Your task to perform on an android device: View the shopping cart on bestbuy.com. Add usb-c to usb-b to the cart on bestbuy.com, then select checkout. Image 0: 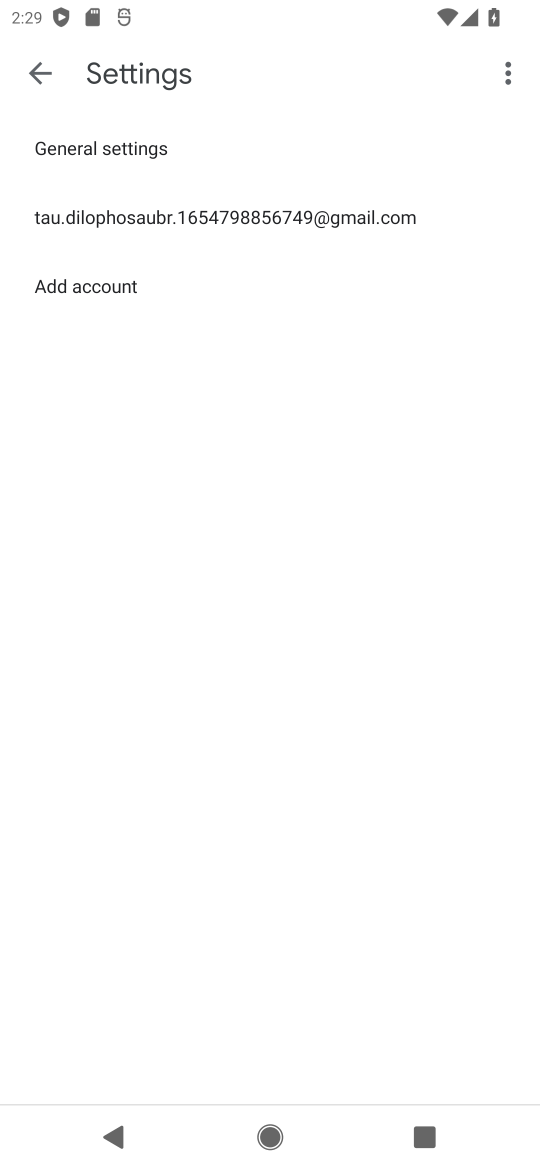
Step 0: press home button
Your task to perform on an android device: View the shopping cart on bestbuy.com. Add usb-c to usb-b to the cart on bestbuy.com, then select checkout. Image 1: 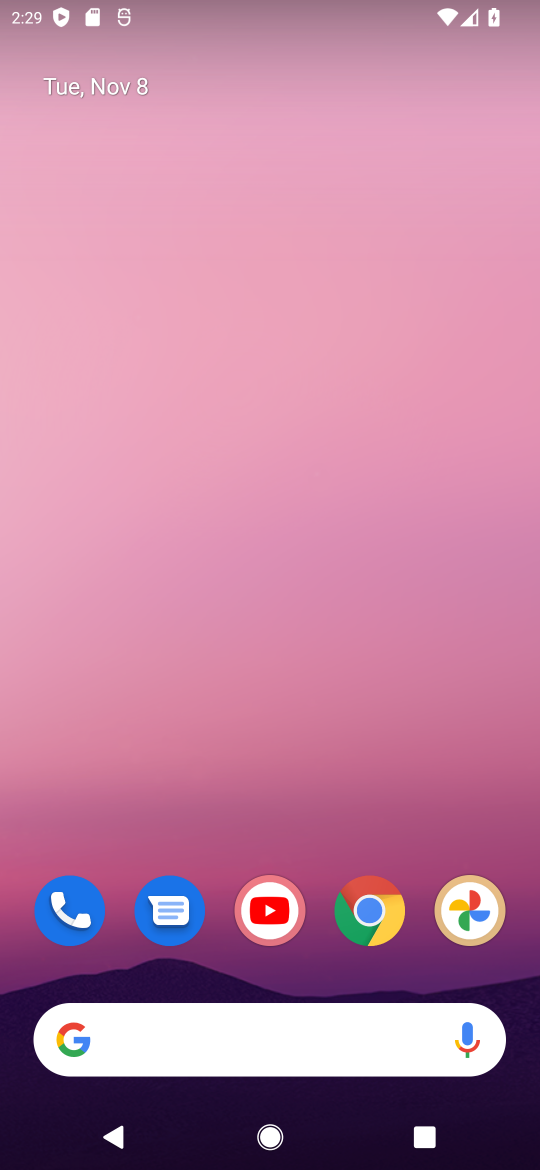
Step 1: drag from (318, 940) to (363, 87)
Your task to perform on an android device: View the shopping cart on bestbuy.com. Add usb-c to usb-b to the cart on bestbuy.com, then select checkout. Image 2: 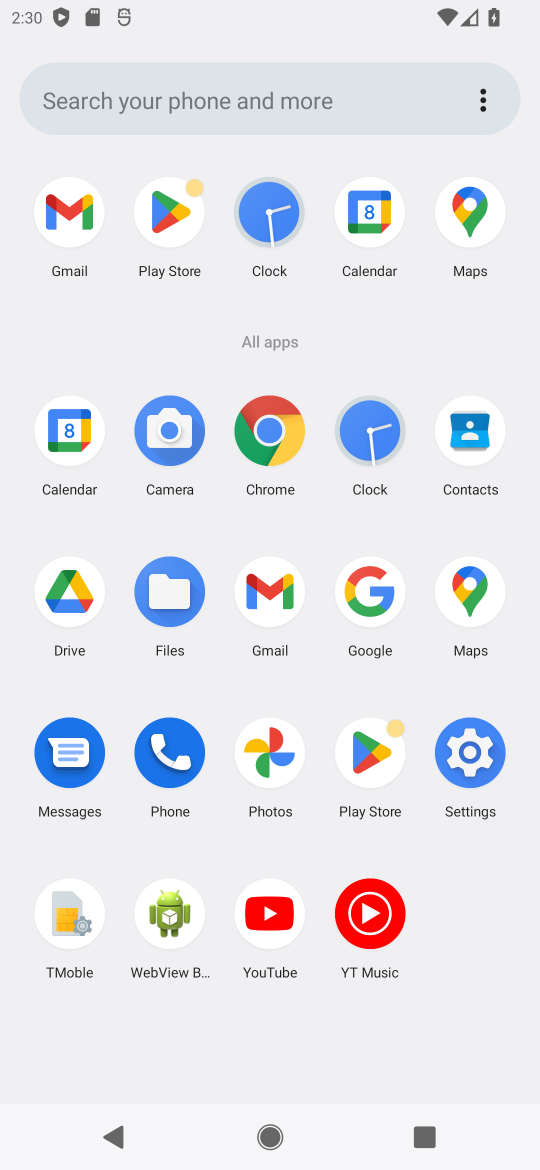
Step 2: click (273, 434)
Your task to perform on an android device: View the shopping cart on bestbuy.com. Add usb-c to usb-b to the cart on bestbuy.com, then select checkout. Image 3: 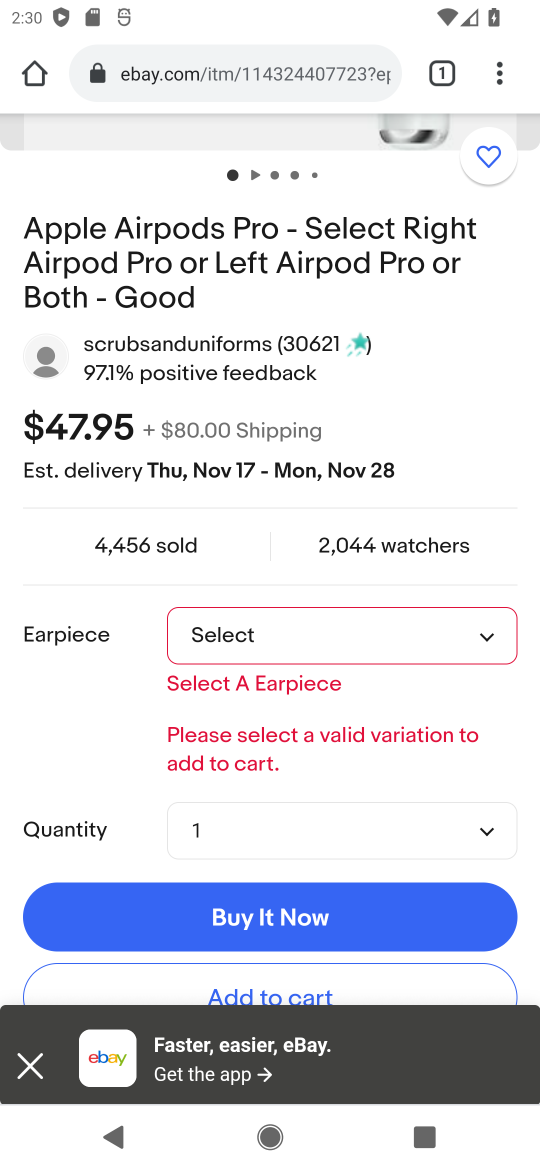
Step 3: click (322, 632)
Your task to perform on an android device: View the shopping cart on bestbuy.com. Add usb-c to usb-b to the cart on bestbuy.com, then select checkout. Image 4: 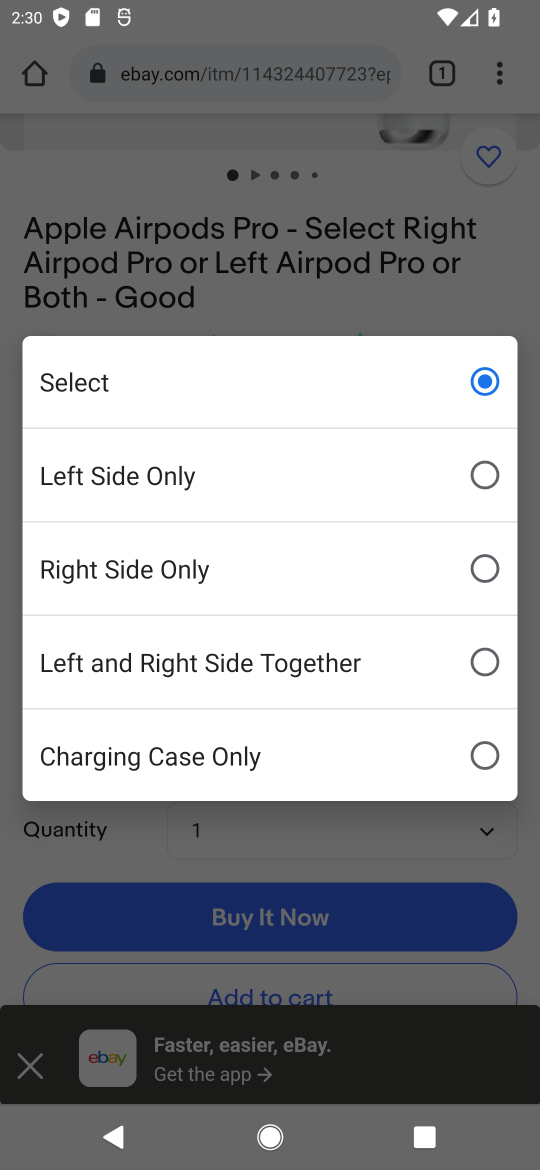
Step 4: click (299, 489)
Your task to perform on an android device: View the shopping cart on bestbuy.com. Add usb-c to usb-b to the cart on bestbuy.com, then select checkout. Image 5: 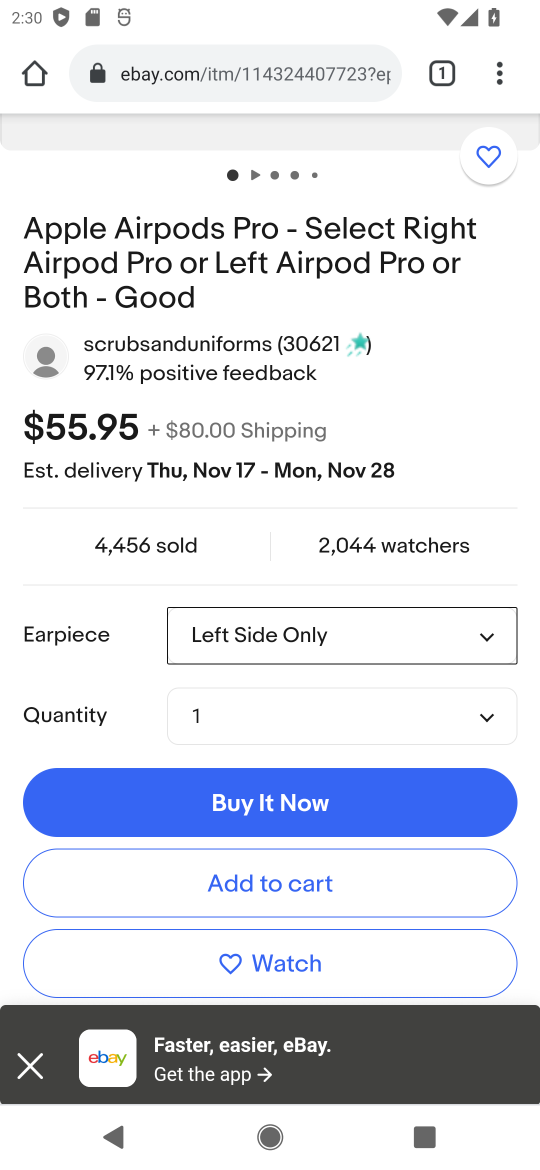
Step 5: drag from (396, 340) to (350, 731)
Your task to perform on an android device: View the shopping cart on bestbuy.com. Add usb-c to usb-b to the cart on bestbuy.com, then select checkout. Image 6: 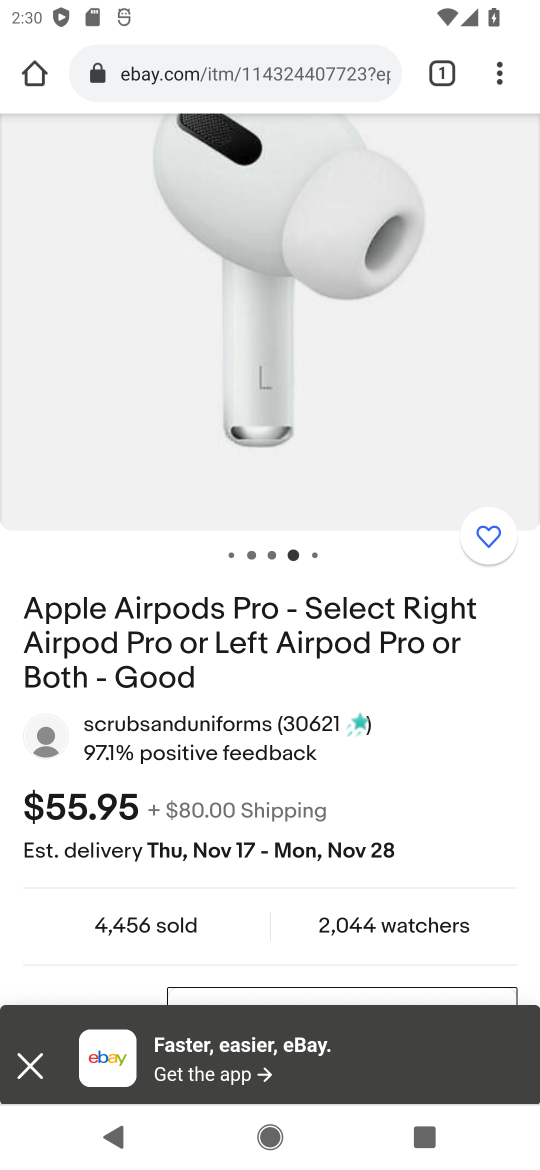
Step 6: drag from (18, 247) to (186, 822)
Your task to perform on an android device: View the shopping cart on bestbuy.com. Add usb-c to usb-b to the cart on bestbuy.com, then select checkout. Image 7: 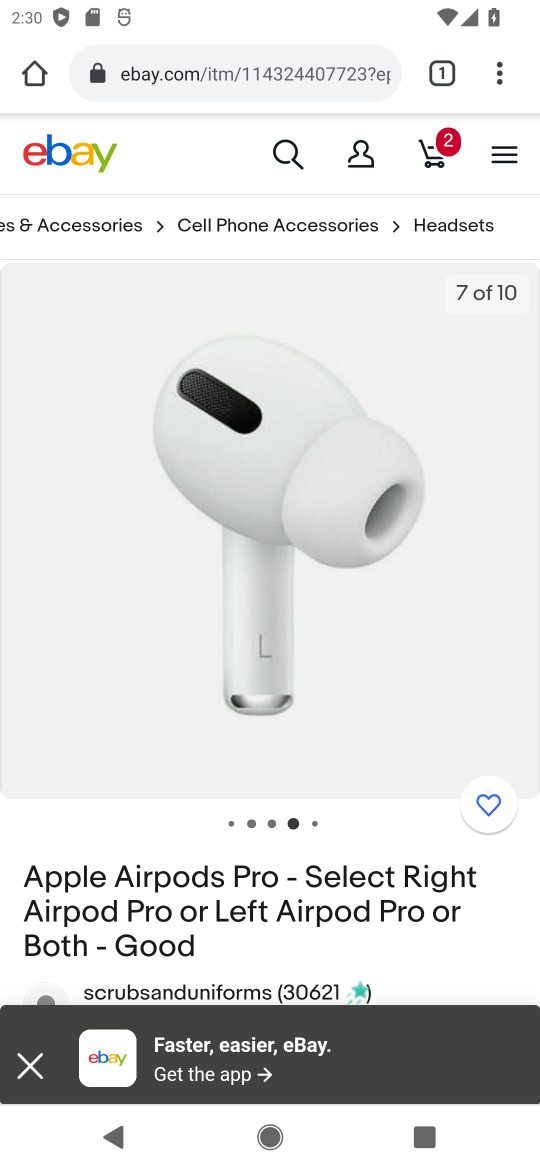
Step 7: click (160, 81)
Your task to perform on an android device: View the shopping cart on bestbuy.com. Add usb-c to usb-b to the cart on bestbuy.com, then select checkout. Image 8: 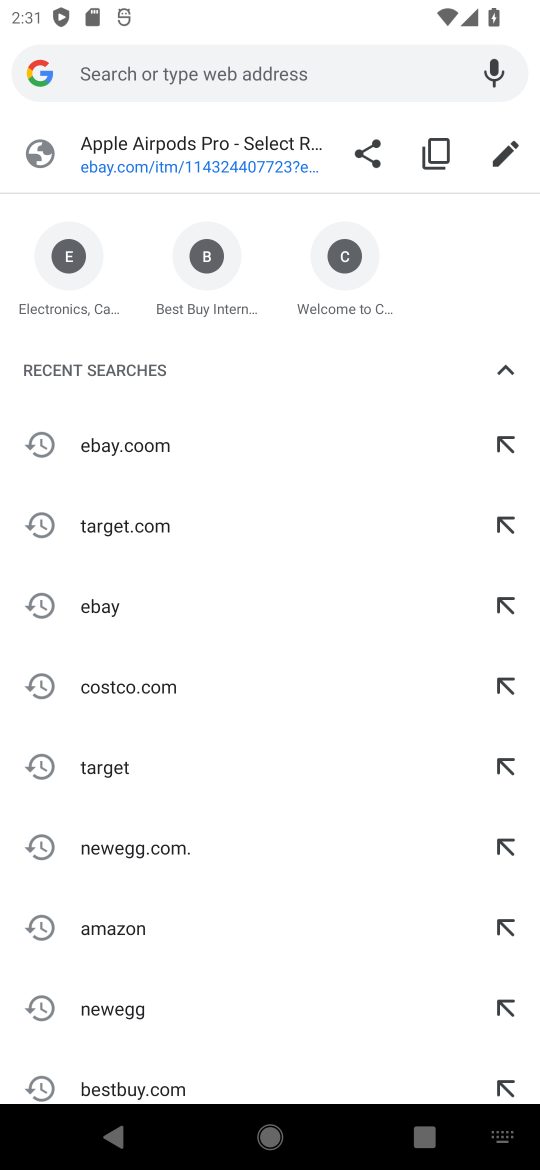
Step 8: type "bestbuy.com"
Your task to perform on an android device: View the shopping cart on bestbuy.com. Add usb-c to usb-b to the cart on bestbuy.com, then select checkout. Image 9: 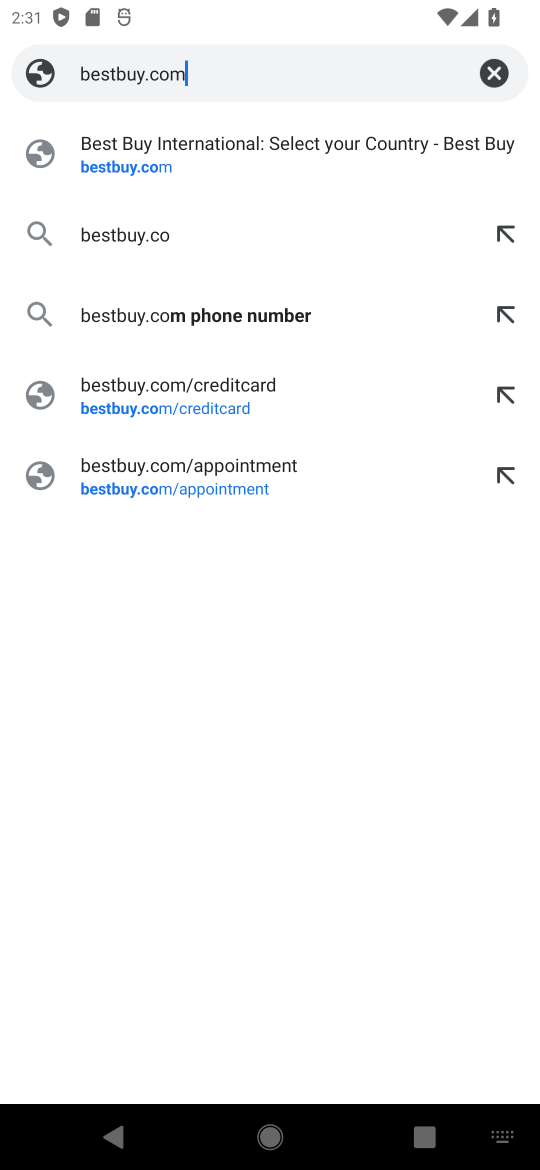
Step 9: press enter
Your task to perform on an android device: View the shopping cart on bestbuy.com. Add usb-c to usb-b to the cart on bestbuy.com, then select checkout. Image 10: 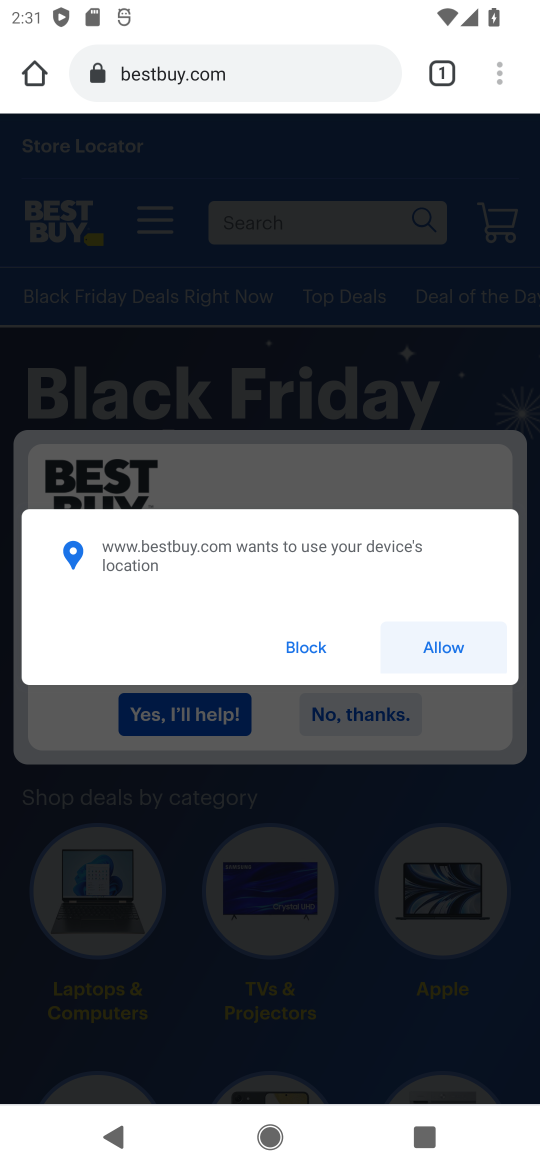
Step 10: click (300, 635)
Your task to perform on an android device: View the shopping cart on bestbuy.com. Add usb-c to usb-b to the cart on bestbuy.com, then select checkout. Image 11: 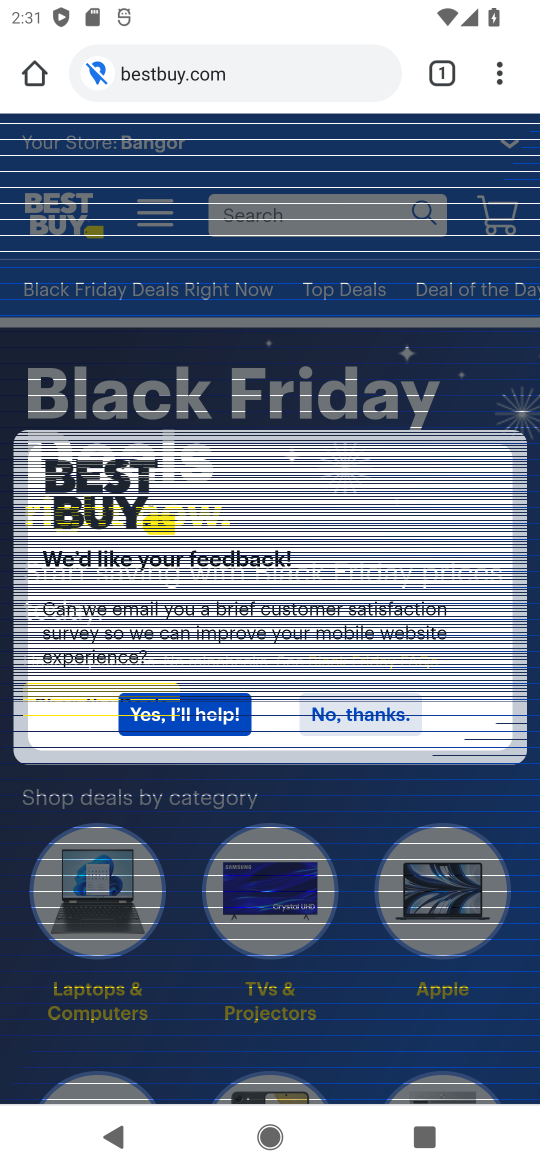
Step 11: click (323, 711)
Your task to perform on an android device: View the shopping cart on bestbuy.com. Add usb-c to usb-b to the cart on bestbuy.com, then select checkout. Image 12: 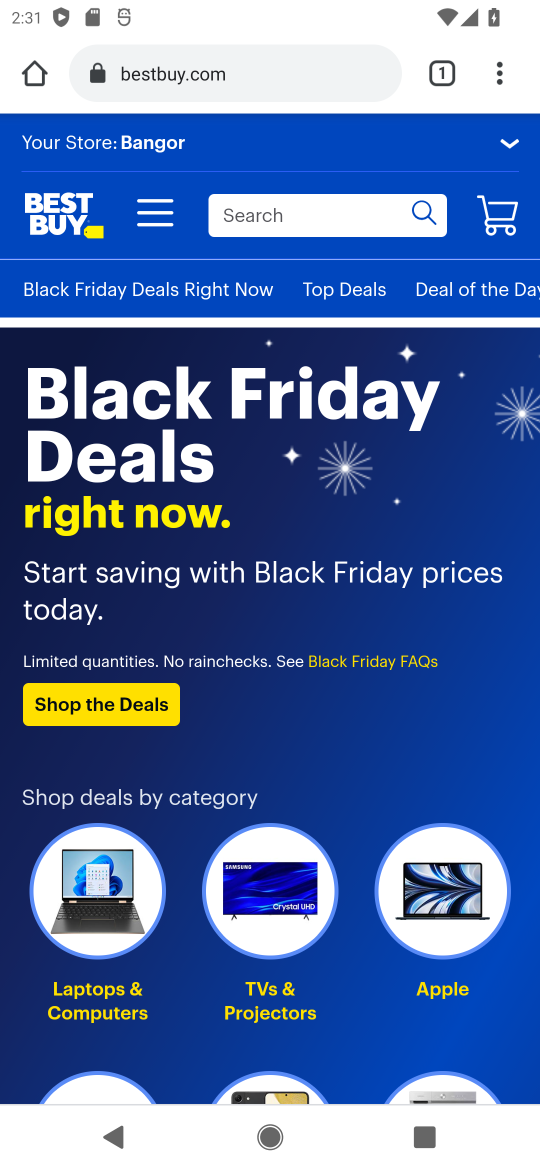
Step 12: click (363, 210)
Your task to perform on an android device: View the shopping cart on bestbuy.com. Add usb-c to usb-b to the cart on bestbuy.com, then select checkout. Image 13: 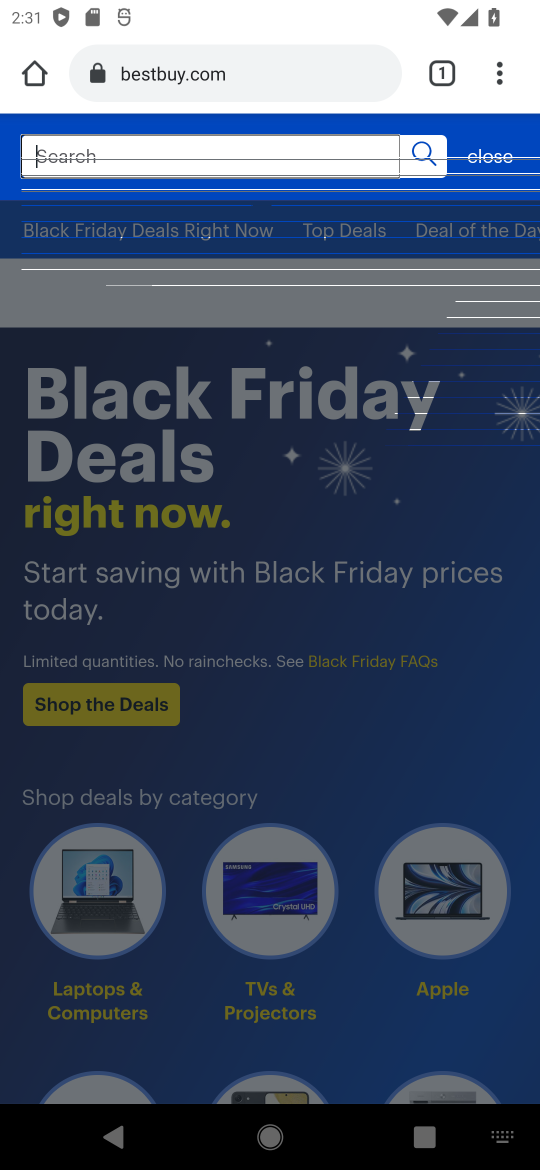
Step 13: click (495, 149)
Your task to perform on an android device: View the shopping cart on bestbuy.com. Add usb-c to usb-b to the cart on bestbuy.com, then select checkout. Image 14: 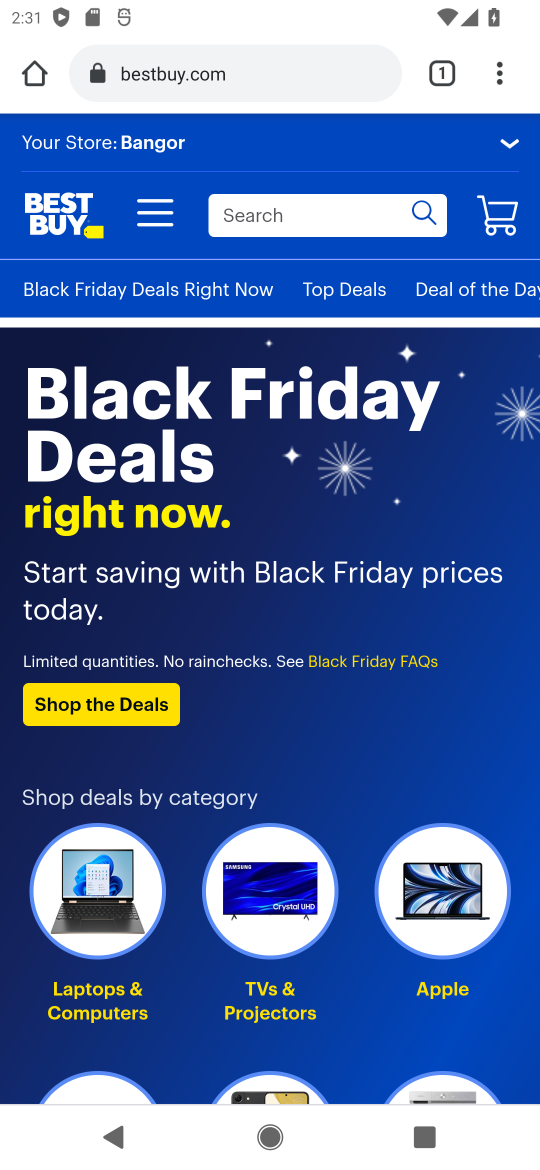
Step 14: click (495, 149)
Your task to perform on an android device: View the shopping cart on bestbuy.com. Add usb-c to usb-b to the cart on bestbuy.com, then select checkout. Image 15: 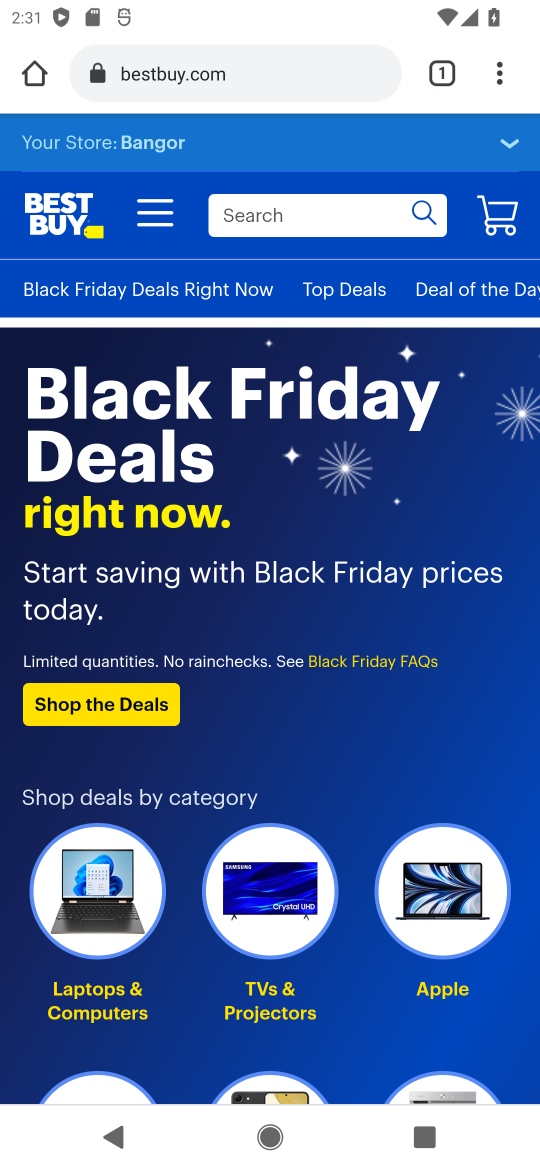
Step 15: click (490, 226)
Your task to perform on an android device: View the shopping cart on bestbuy.com. Add usb-c to usb-b to the cart on bestbuy.com, then select checkout. Image 16: 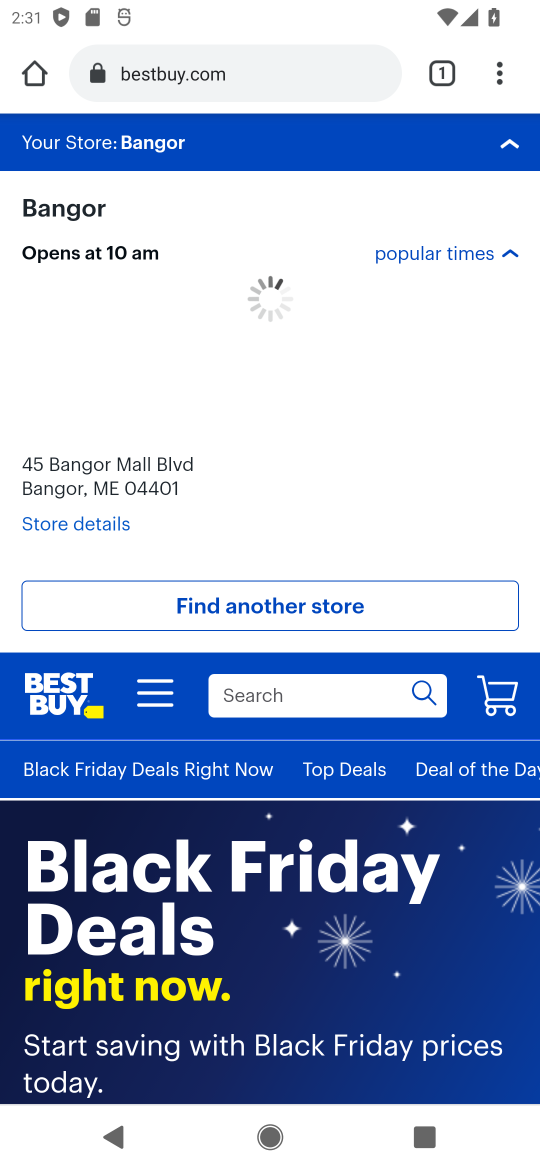
Step 16: click (522, 145)
Your task to perform on an android device: View the shopping cart on bestbuy.com. Add usb-c to usb-b to the cart on bestbuy.com, then select checkout. Image 17: 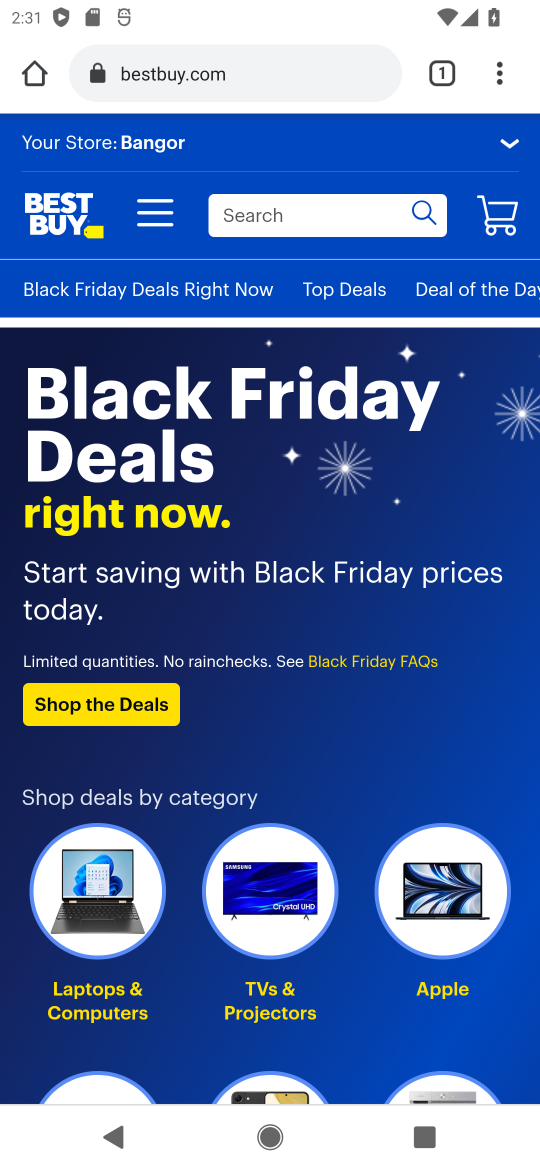
Step 17: click (489, 216)
Your task to perform on an android device: View the shopping cart on bestbuy.com. Add usb-c to usb-b to the cart on bestbuy.com, then select checkout. Image 18: 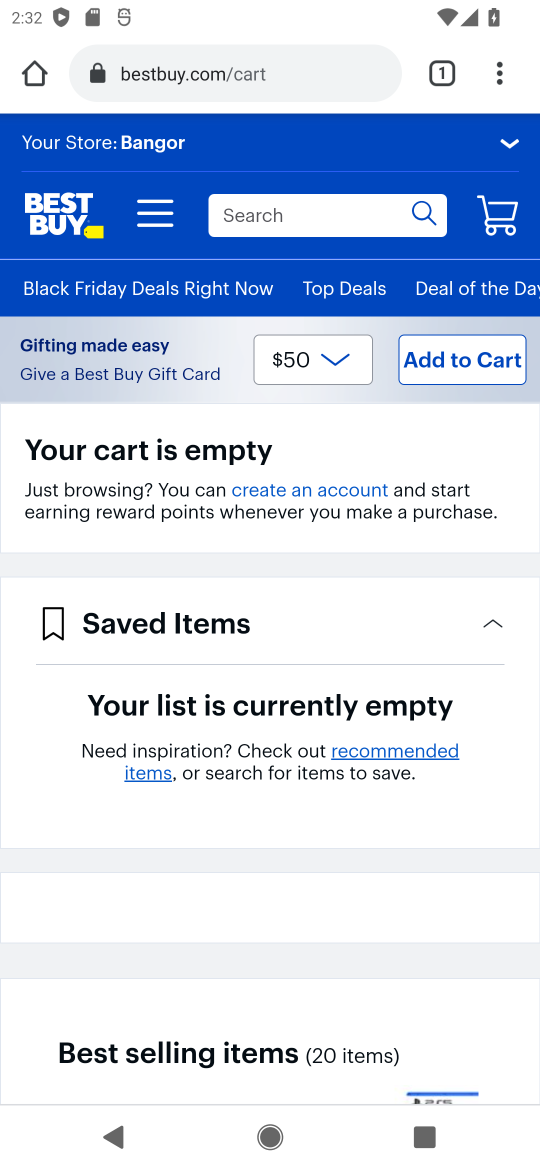
Step 18: click (315, 219)
Your task to perform on an android device: View the shopping cart on bestbuy.com. Add usb-c to usb-b to the cart on bestbuy.com, then select checkout. Image 19: 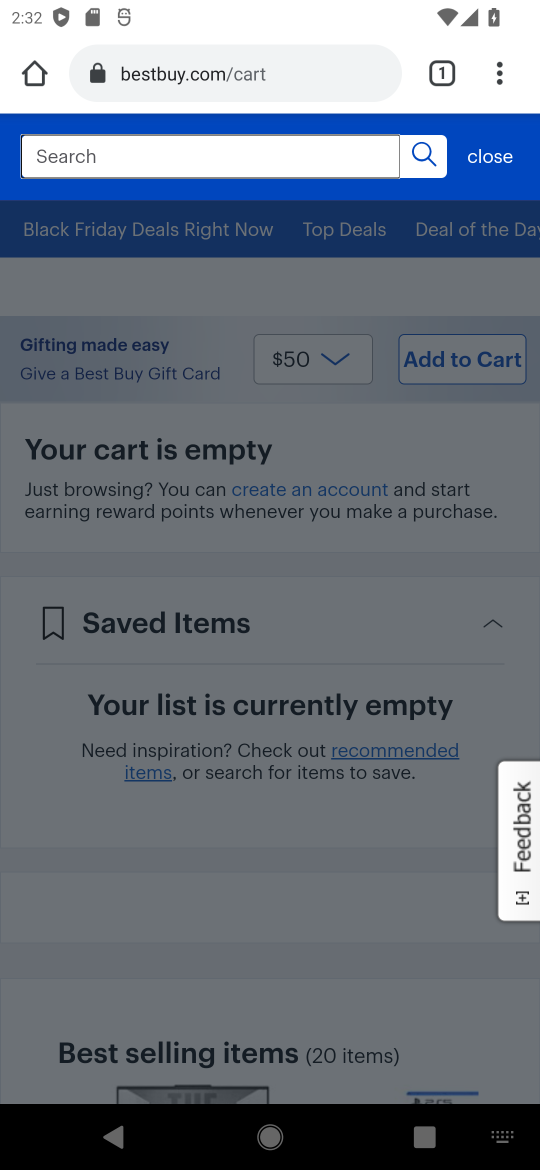
Step 19: type "usb-c to usb-b"
Your task to perform on an android device: View the shopping cart on bestbuy.com. Add usb-c to usb-b to the cart on bestbuy.com, then select checkout. Image 20: 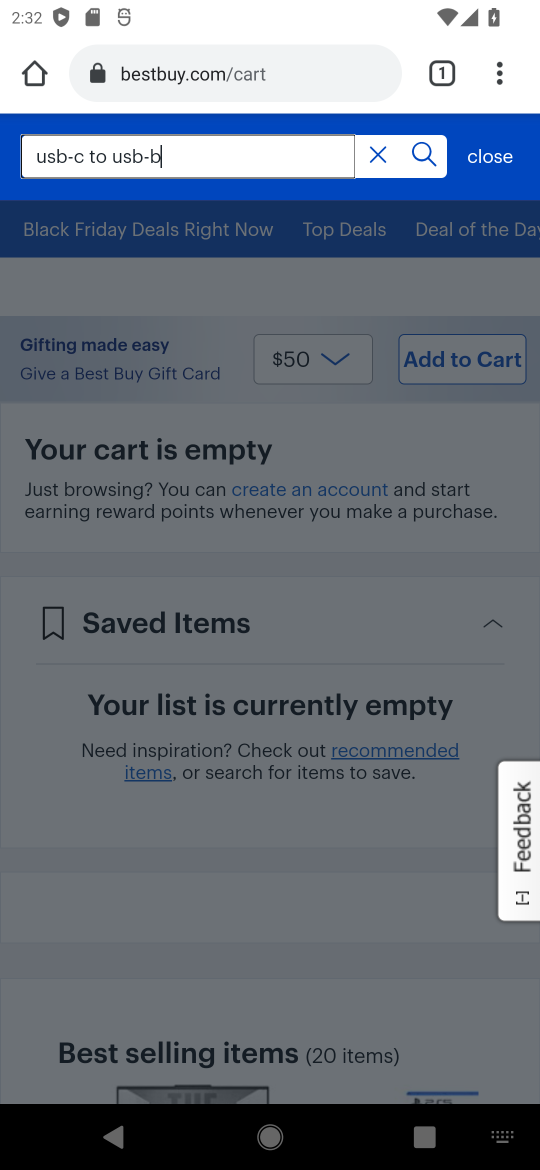
Step 20: press enter
Your task to perform on an android device: View the shopping cart on bestbuy.com. Add usb-c to usb-b to the cart on bestbuy.com, then select checkout. Image 21: 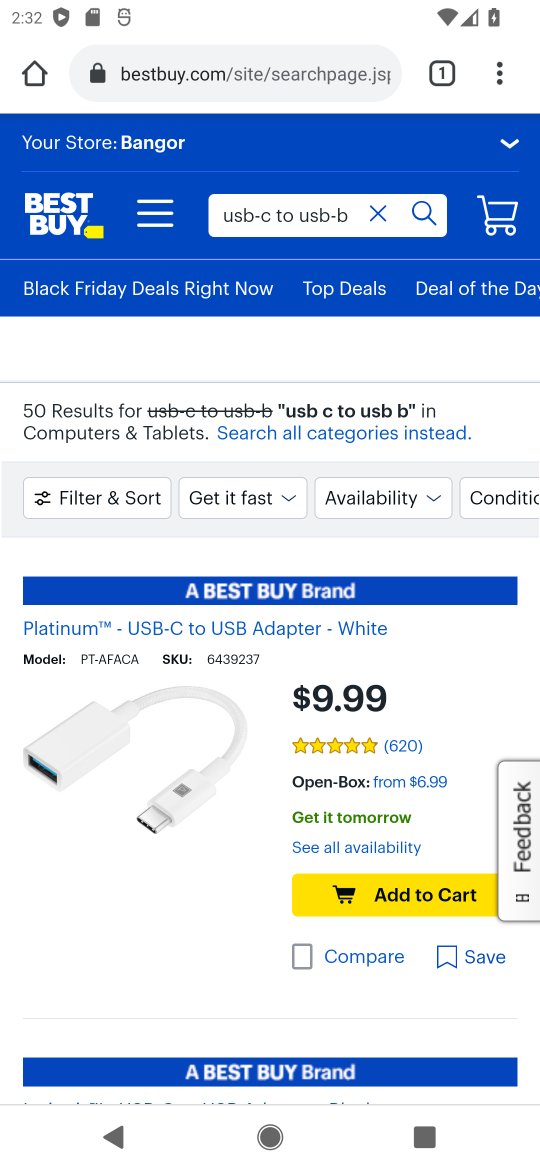
Step 21: task complete